Your task to perform on an android device: Open calendar and show me the third week of next month Image 0: 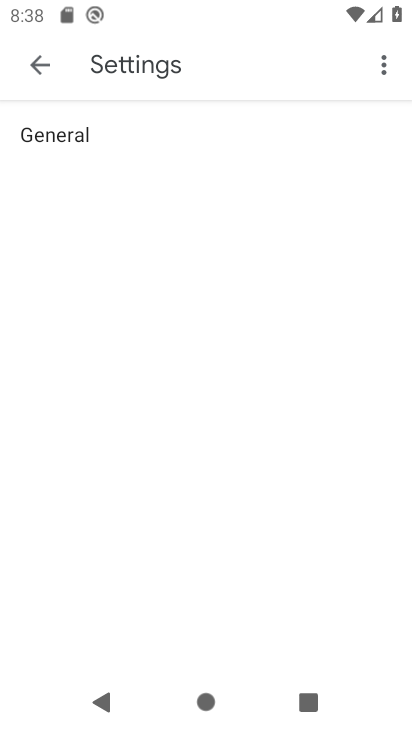
Step 0: press home button
Your task to perform on an android device: Open calendar and show me the third week of next month Image 1: 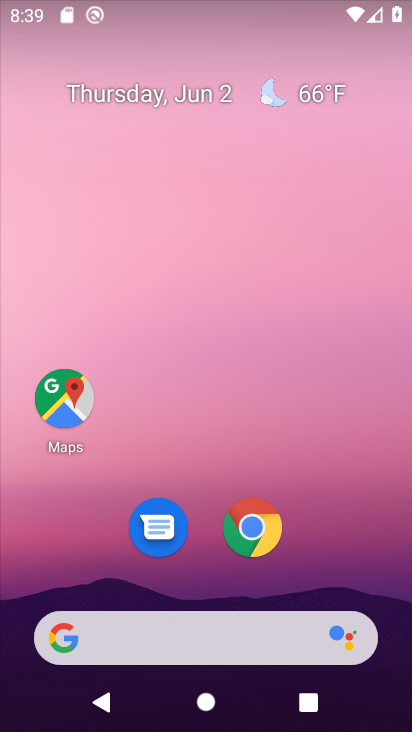
Step 1: drag from (354, 565) to (303, 214)
Your task to perform on an android device: Open calendar and show me the third week of next month Image 2: 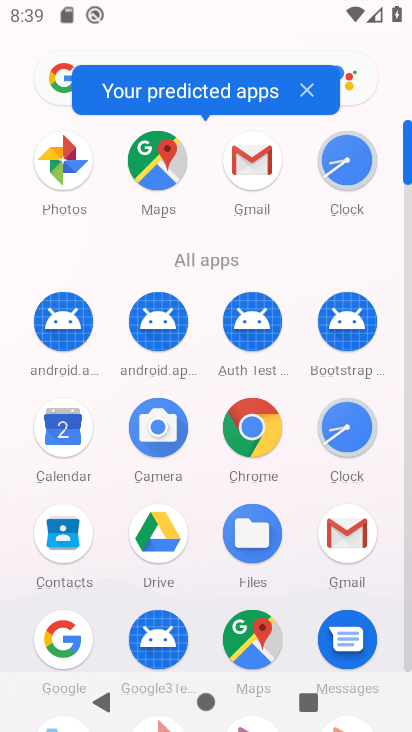
Step 2: click (64, 432)
Your task to perform on an android device: Open calendar and show me the third week of next month Image 3: 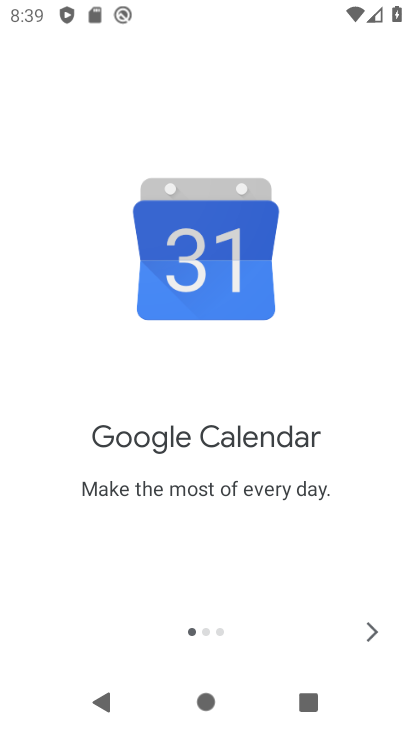
Step 3: click (376, 635)
Your task to perform on an android device: Open calendar and show me the third week of next month Image 4: 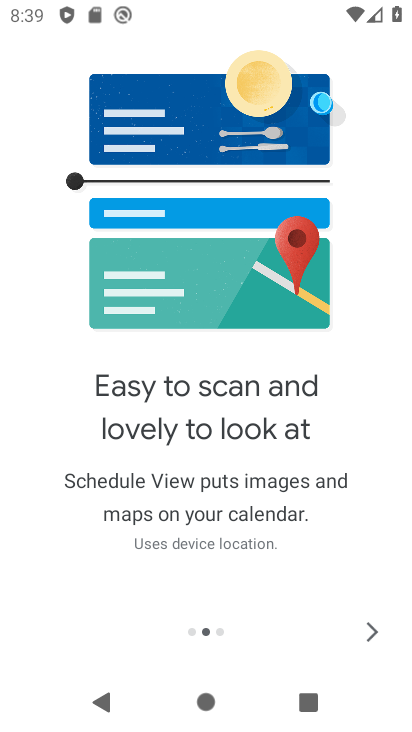
Step 4: click (374, 633)
Your task to perform on an android device: Open calendar and show me the third week of next month Image 5: 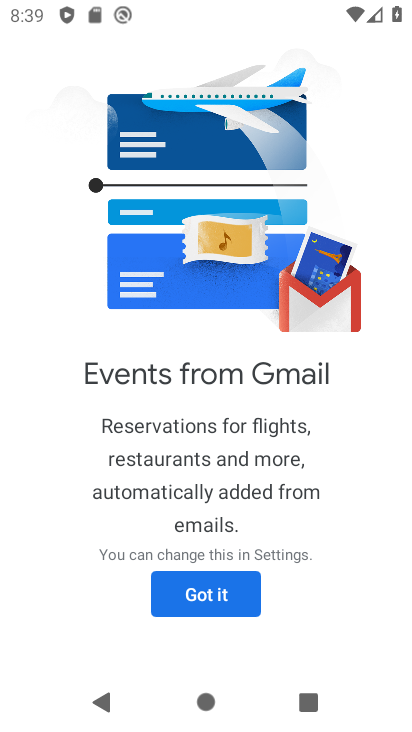
Step 5: click (233, 618)
Your task to perform on an android device: Open calendar and show me the third week of next month Image 6: 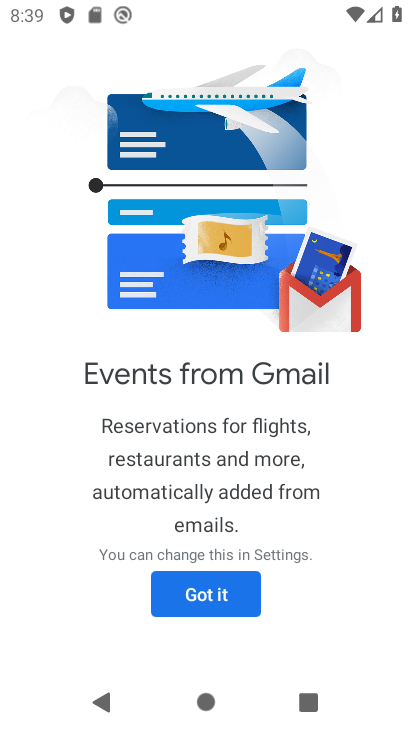
Step 6: click (231, 607)
Your task to perform on an android device: Open calendar and show me the third week of next month Image 7: 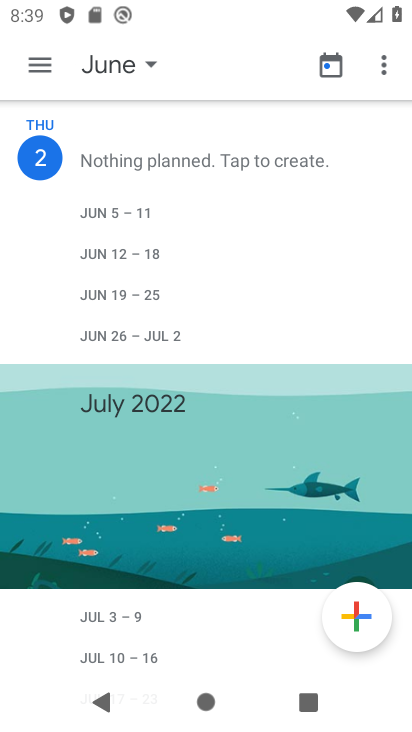
Step 7: click (69, 61)
Your task to perform on an android device: Open calendar and show me the third week of next month Image 8: 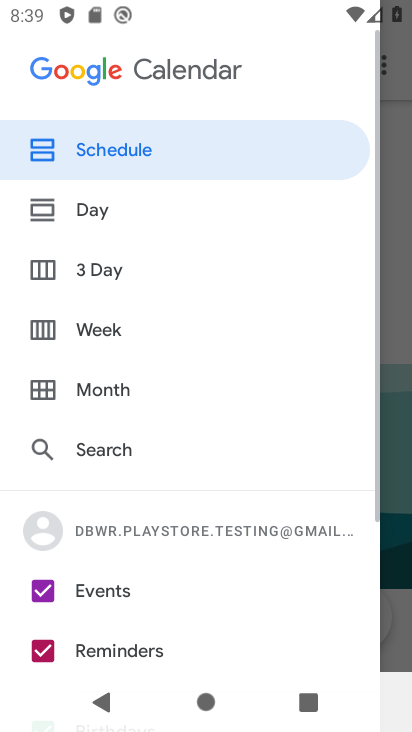
Step 8: click (409, 217)
Your task to perform on an android device: Open calendar and show me the third week of next month Image 9: 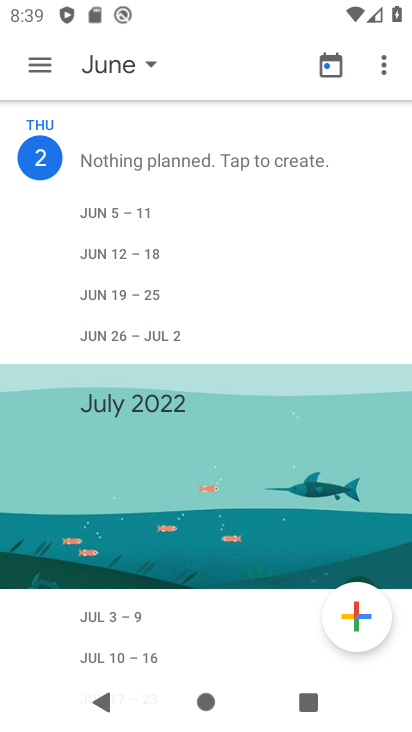
Step 9: click (107, 75)
Your task to perform on an android device: Open calendar and show me the third week of next month Image 10: 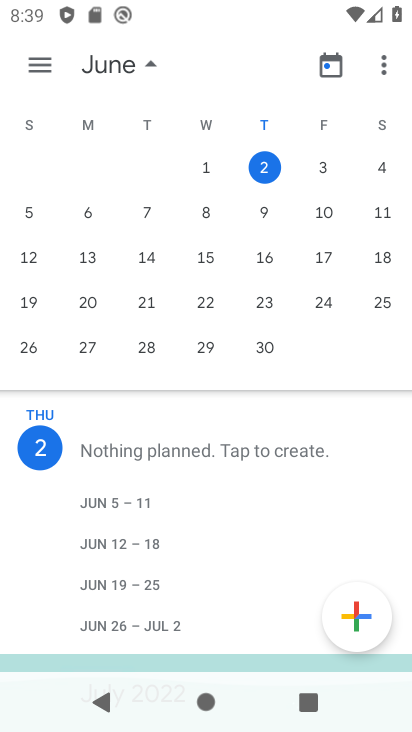
Step 10: drag from (380, 279) to (71, 266)
Your task to perform on an android device: Open calendar and show me the third week of next month Image 11: 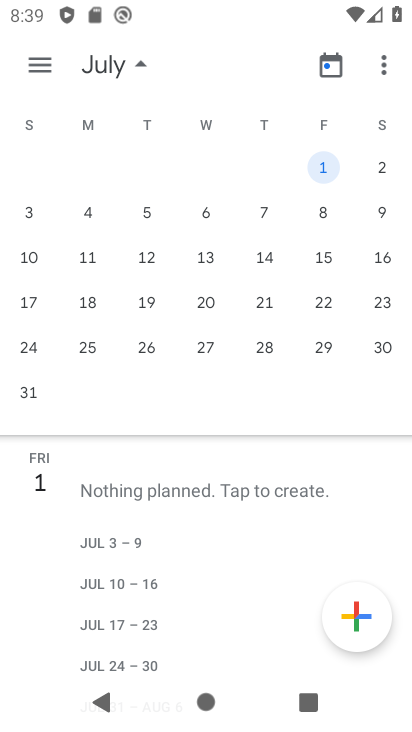
Step 11: click (31, 312)
Your task to perform on an android device: Open calendar and show me the third week of next month Image 12: 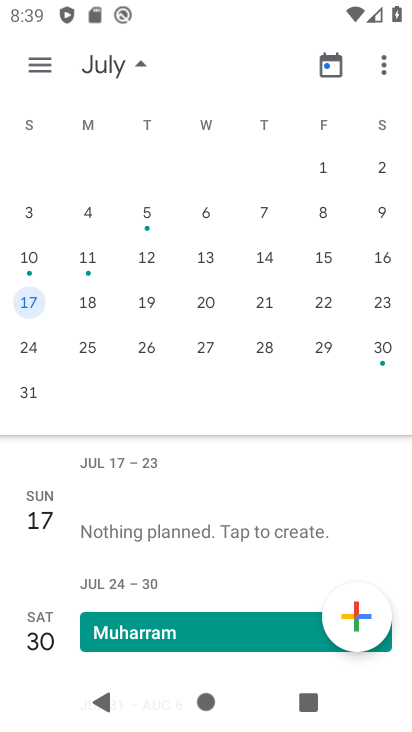
Step 12: task complete